Your task to perform on an android device: delete location history Image 0: 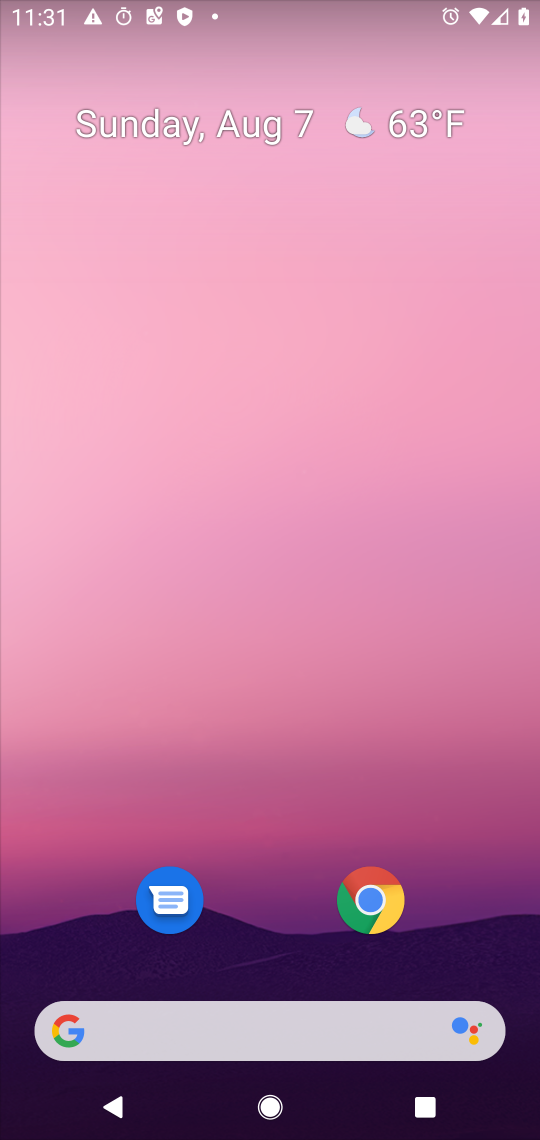
Step 0: press home button
Your task to perform on an android device: delete location history Image 1: 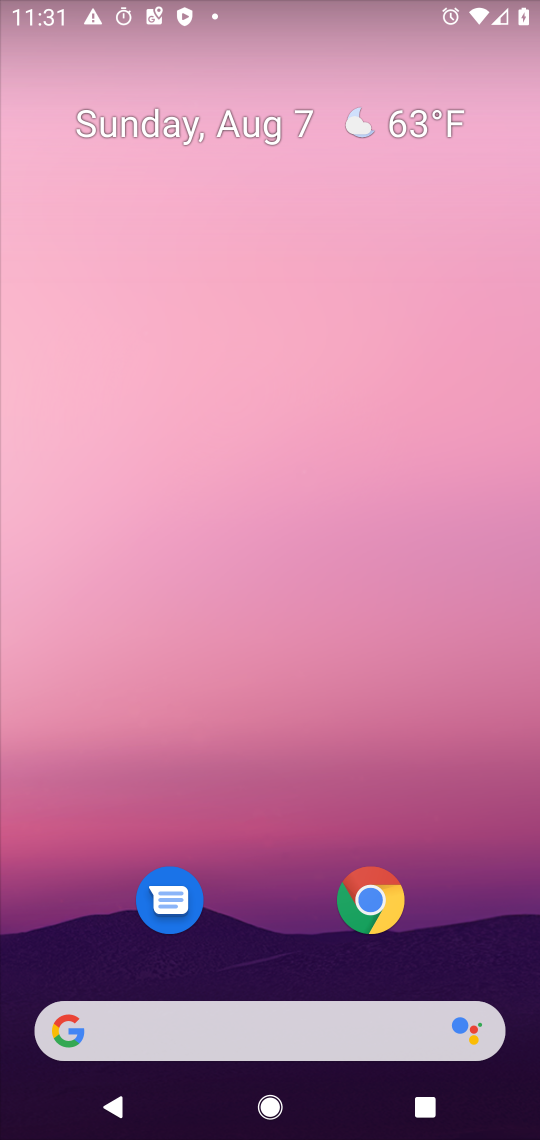
Step 1: drag from (268, 950) to (289, 83)
Your task to perform on an android device: delete location history Image 2: 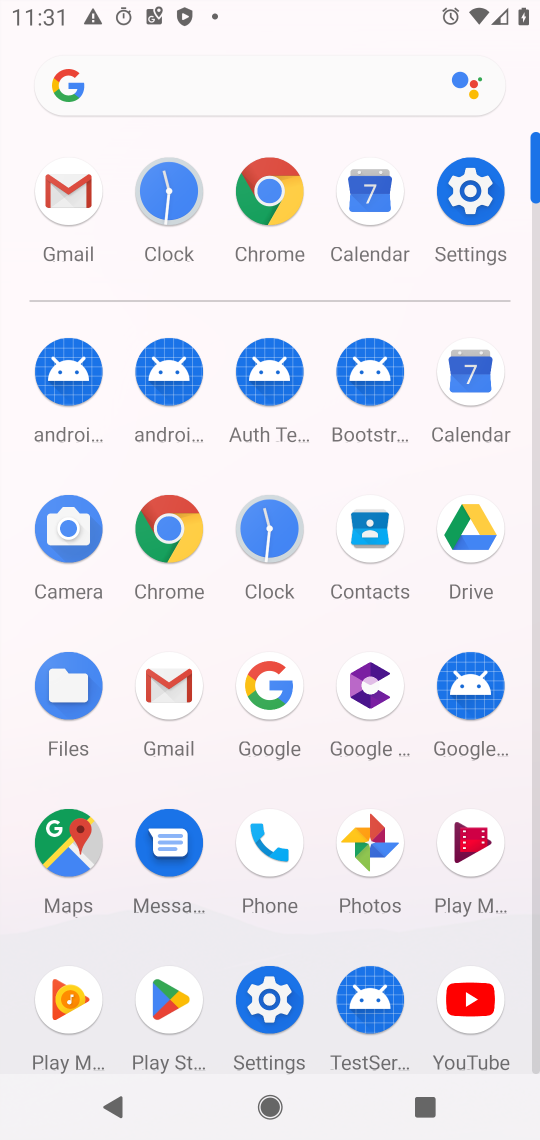
Step 2: click (71, 837)
Your task to perform on an android device: delete location history Image 3: 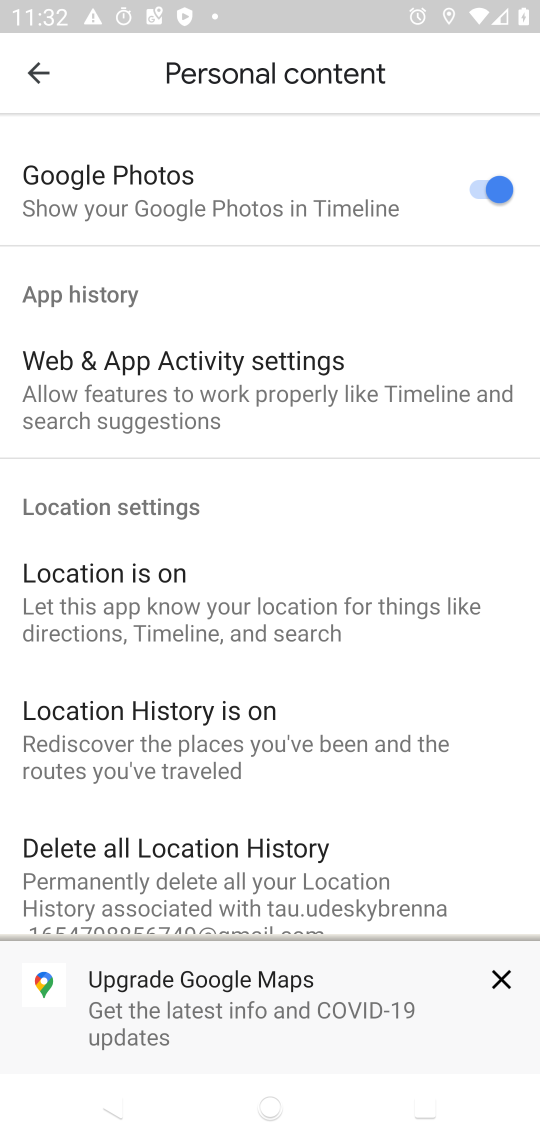
Step 3: click (245, 858)
Your task to perform on an android device: delete location history Image 4: 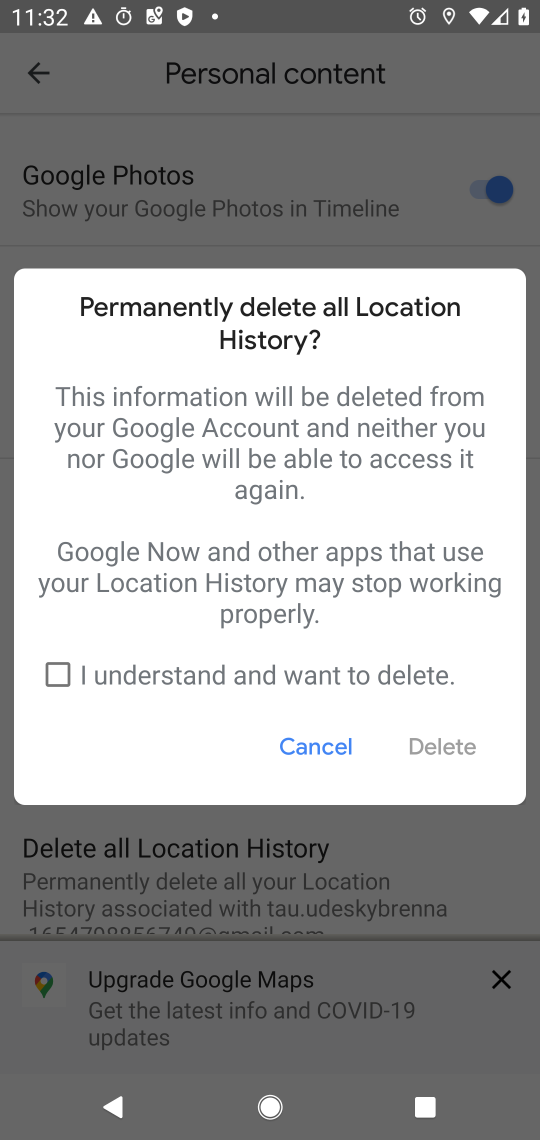
Step 4: click (56, 671)
Your task to perform on an android device: delete location history Image 5: 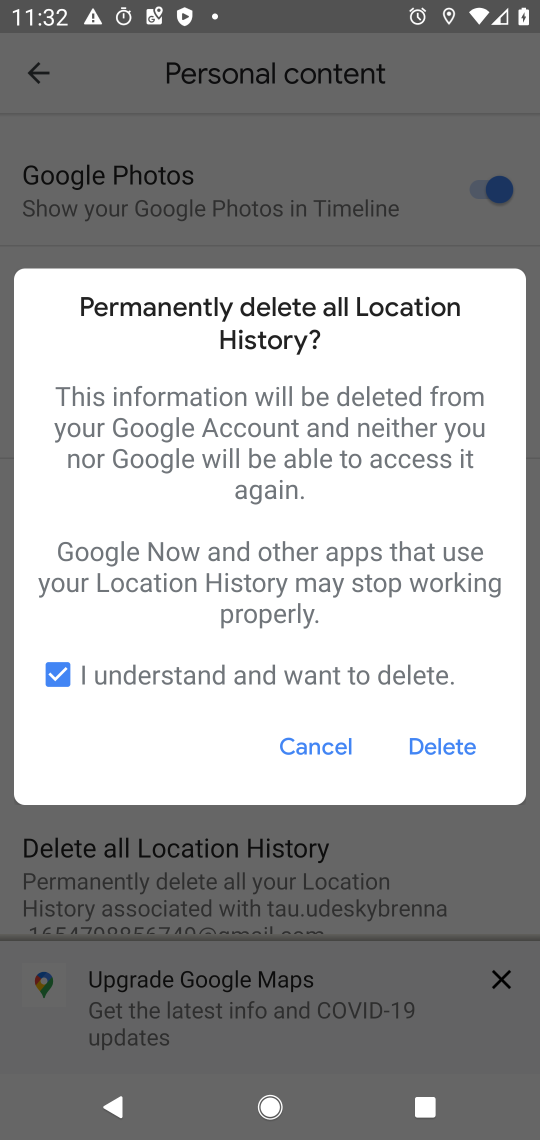
Step 5: click (441, 741)
Your task to perform on an android device: delete location history Image 6: 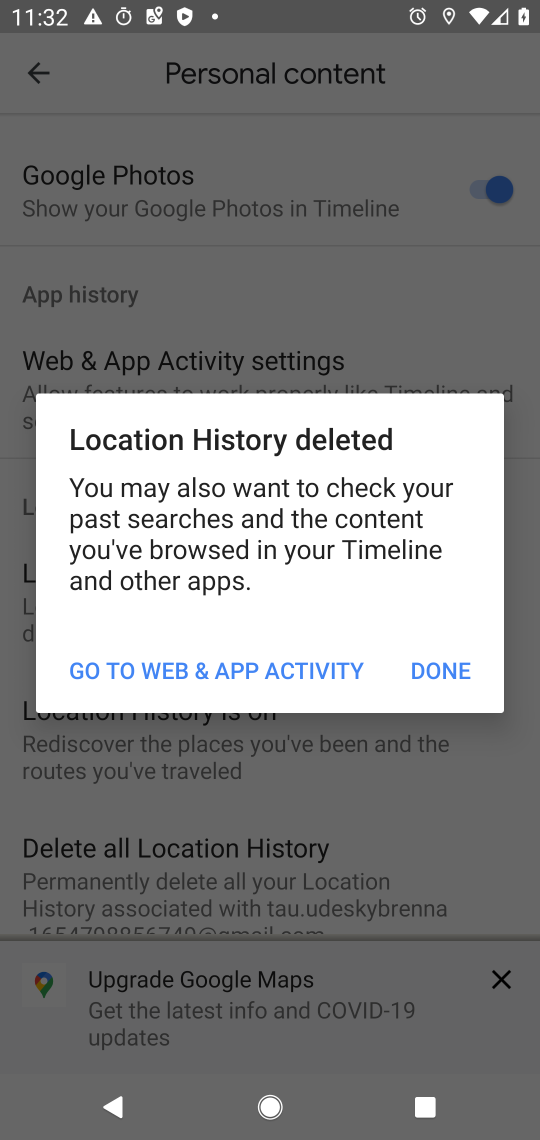
Step 6: click (459, 677)
Your task to perform on an android device: delete location history Image 7: 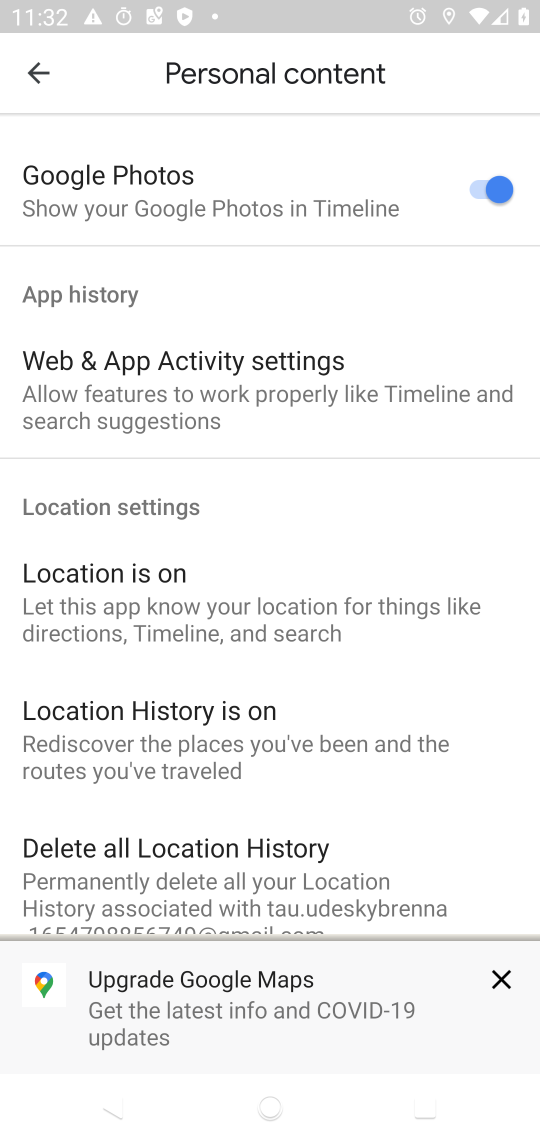
Step 7: task complete